Your task to perform on an android device: toggle notifications settings in the gmail app Image 0: 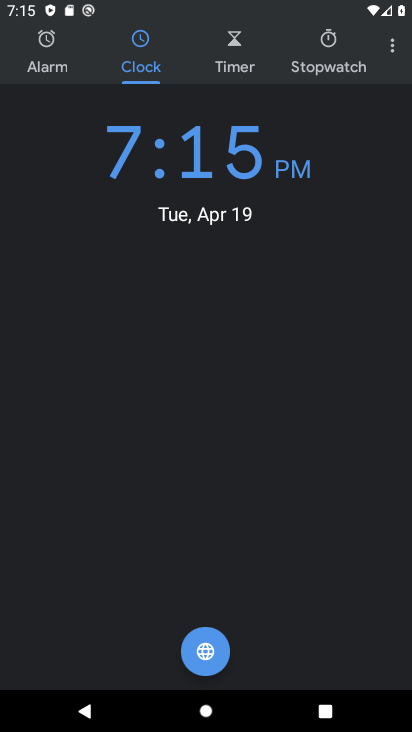
Step 0: press home button
Your task to perform on an android device: toggle notifications settings in the gmail app Image 1: 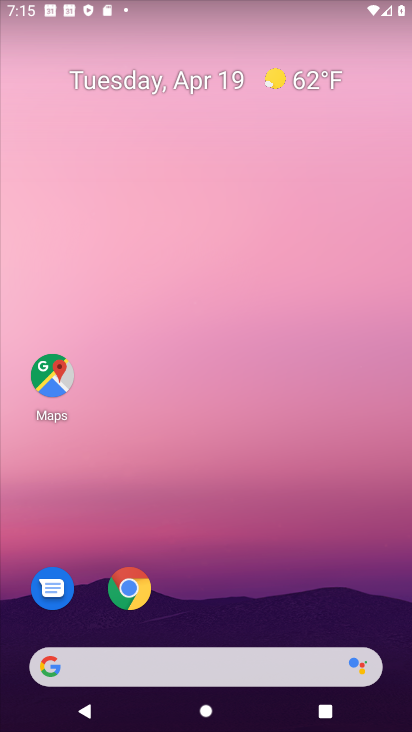
Step 1: click (31, 121)
Your task to perform on an android device: toggle notifications settings in the gmail app Image 2: 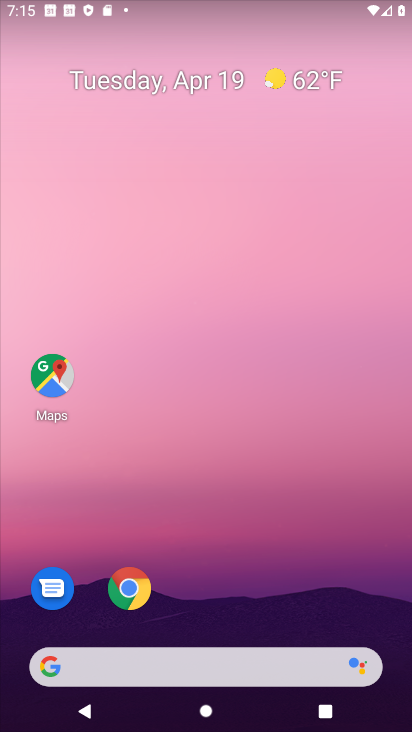
Step 2: drag from (258, 608) to (261, 55)
Your task to perform on an android device: toggle notifications settings in the gmail app Image 3: 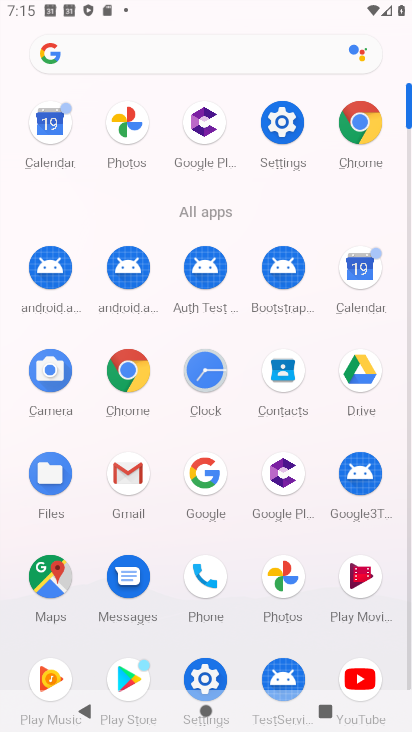
Step 3: click (123, 480)
Your task to perform on an android device: toggle notifications settings in the gmail app Image 4: 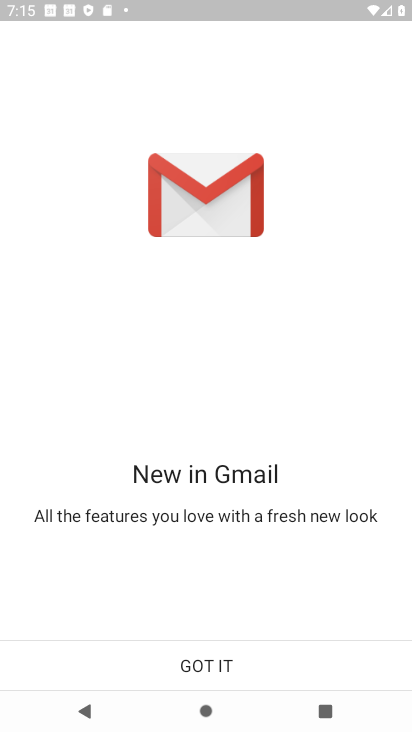
Step 4: click (214, 668)
Your task to perform on an android device: toggle notifications settings in the gmail app Image 5: 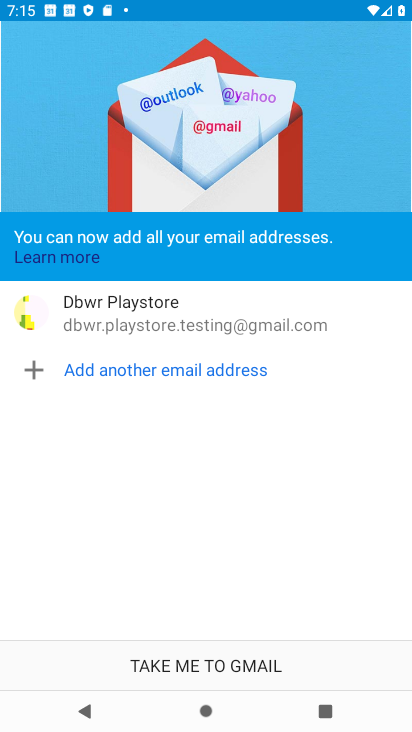
Step 5: click (214, 668)
Your task to perform on an android device: toggle notifications settings in the gmail app Image 6: 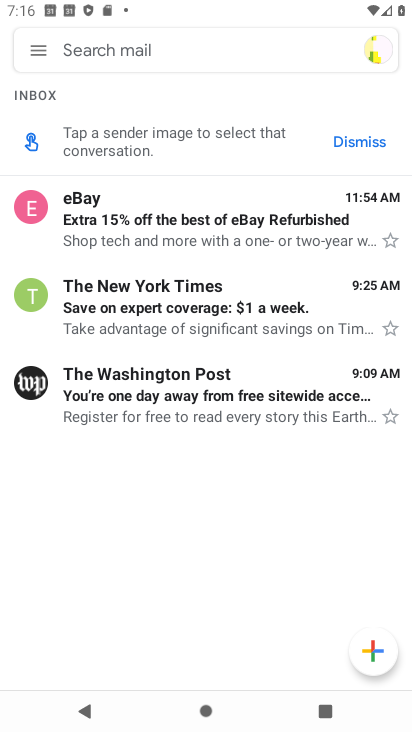
Step 6: click (40, 51)
Your task to perform on an android device: toggle notifications settings in the gmail app Image 7: 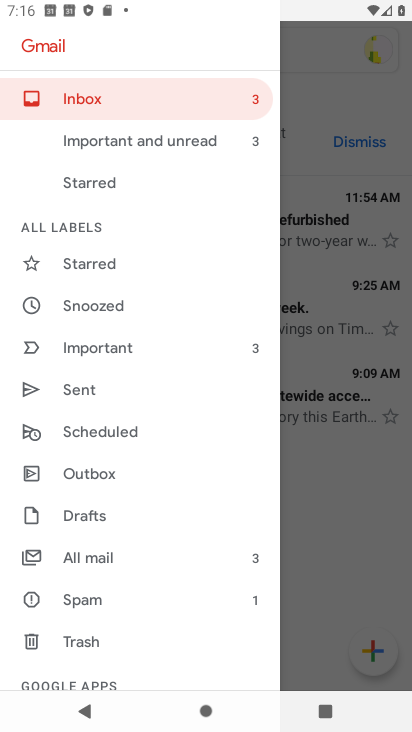
Step 7: drag from (111, 606) to (106, 349)
Your task to perform on an android device: toggle notifications settings in the gmail app Image 8: 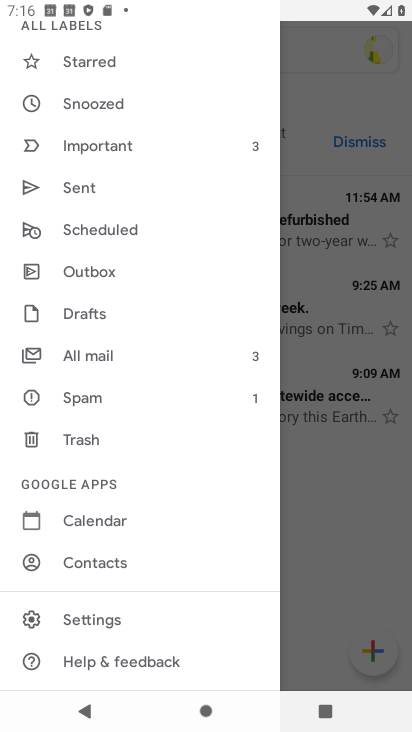
Step 8: click (80, 614)
Your task to perform on an android device: toggle notifications settings in the gmail app Image 9: 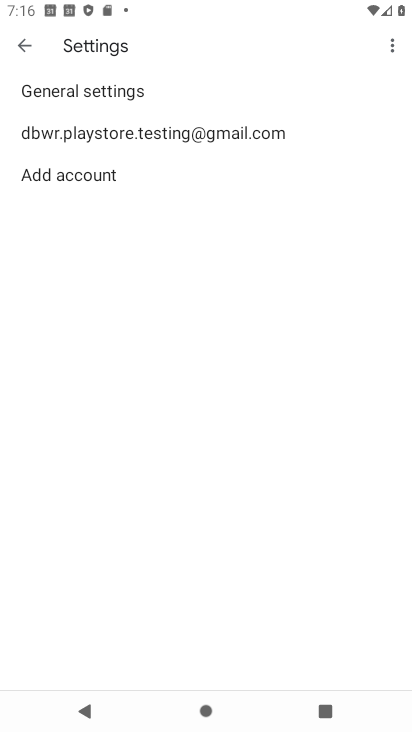
Step 9: click (80, 89)
Your task to perform on an android device: toggle notifications settings in the gmail app Image 10: 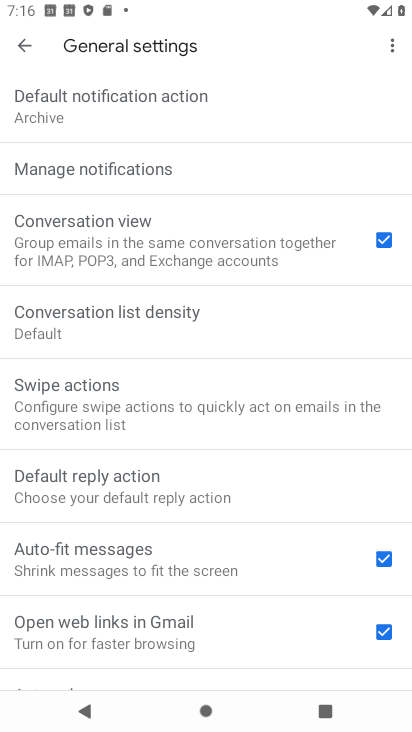
Step 10: click (74, 166)
Your task to perform on an android device: toggle notifications settings in the gmail app Image 11: 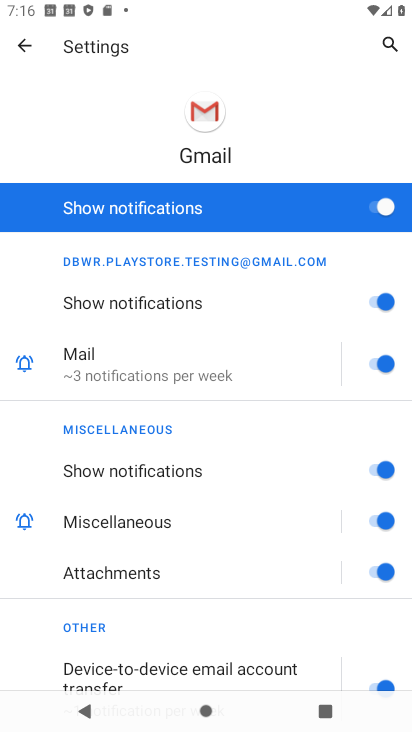
Step 11: click (388, 203)
Your task to perform on an android device: toggle notifications settings in the gmail app Image 12: 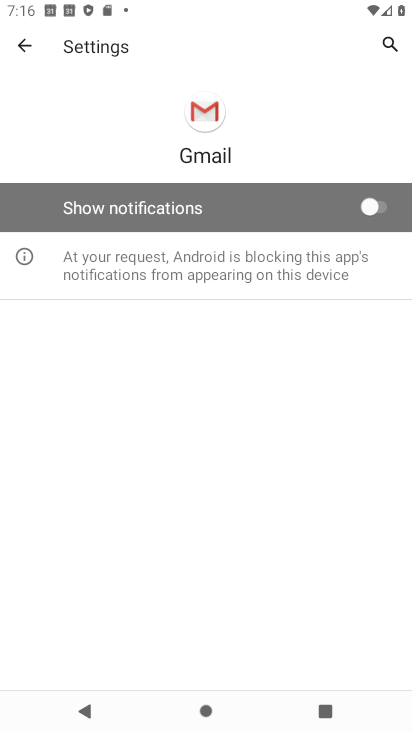
Step 12: task complete